Your task to perform on an android device: Check the weather Image 0: 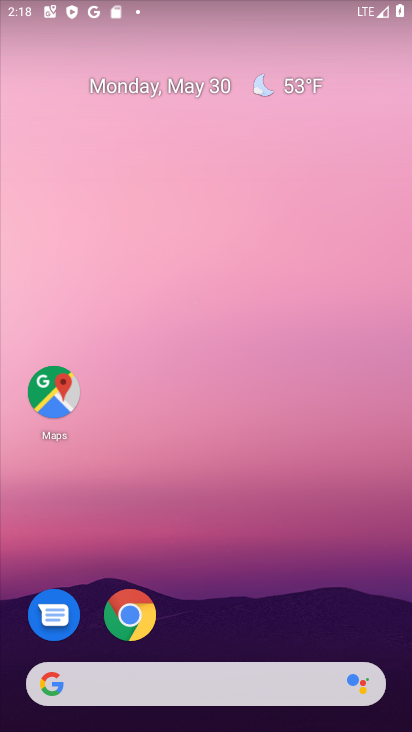
Step 0: click (308, 75)
Your task to perform on an android device: Check the weather Image 1: 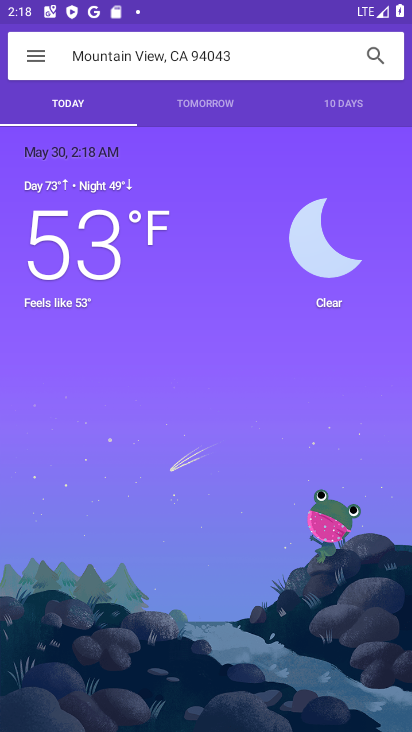
Step 1: click (178, 435)
Your task to perform on an android device: Check the weather Image 2: 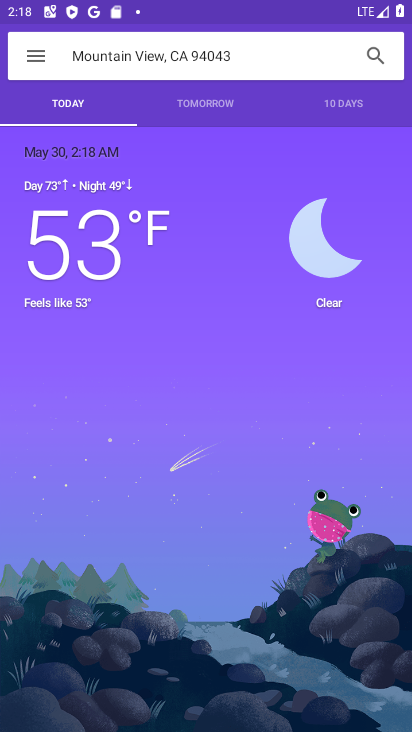
Step 2: task complete